Your task to perform on an android device: Search for usb-a on walmart, select the first entry, and add it to the cart. Image 0: 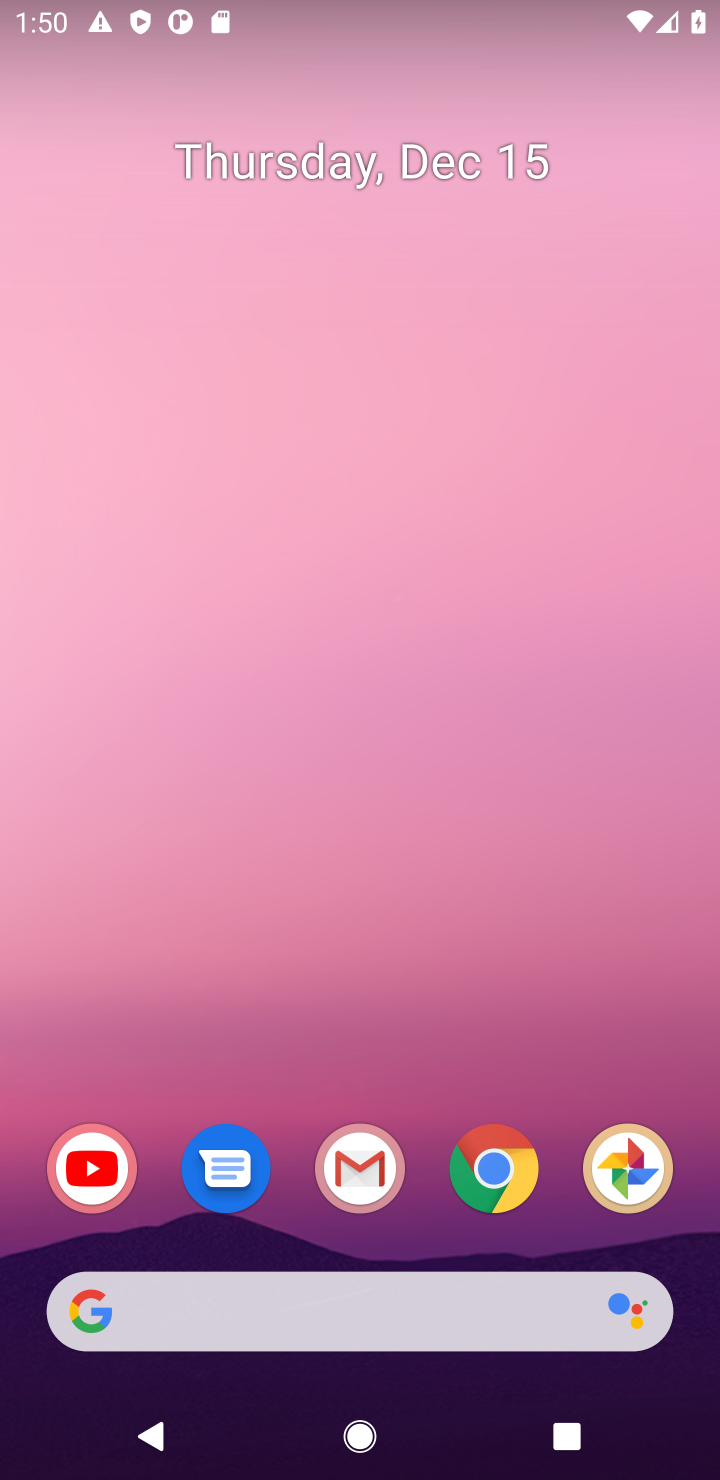
Step 0: click (488, 1183)
Your task to perform on an android device: Search for usb-a on walmart, select the first entry, and add it to the cart. Image 1: 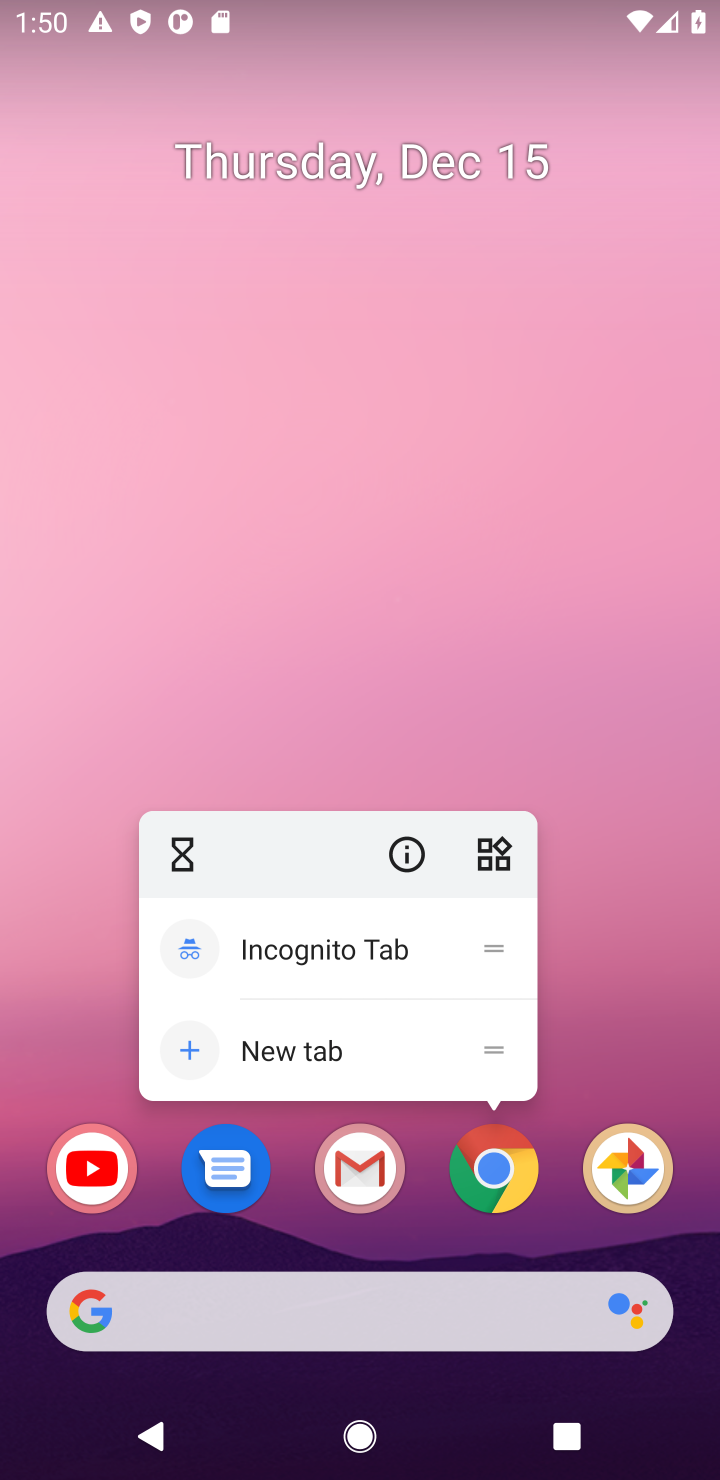
Step 1: click (488, 1183)
Your task to perform on an android device: Search for usb-a on walmart, select the first entry, and add it to the cart. Image 2: 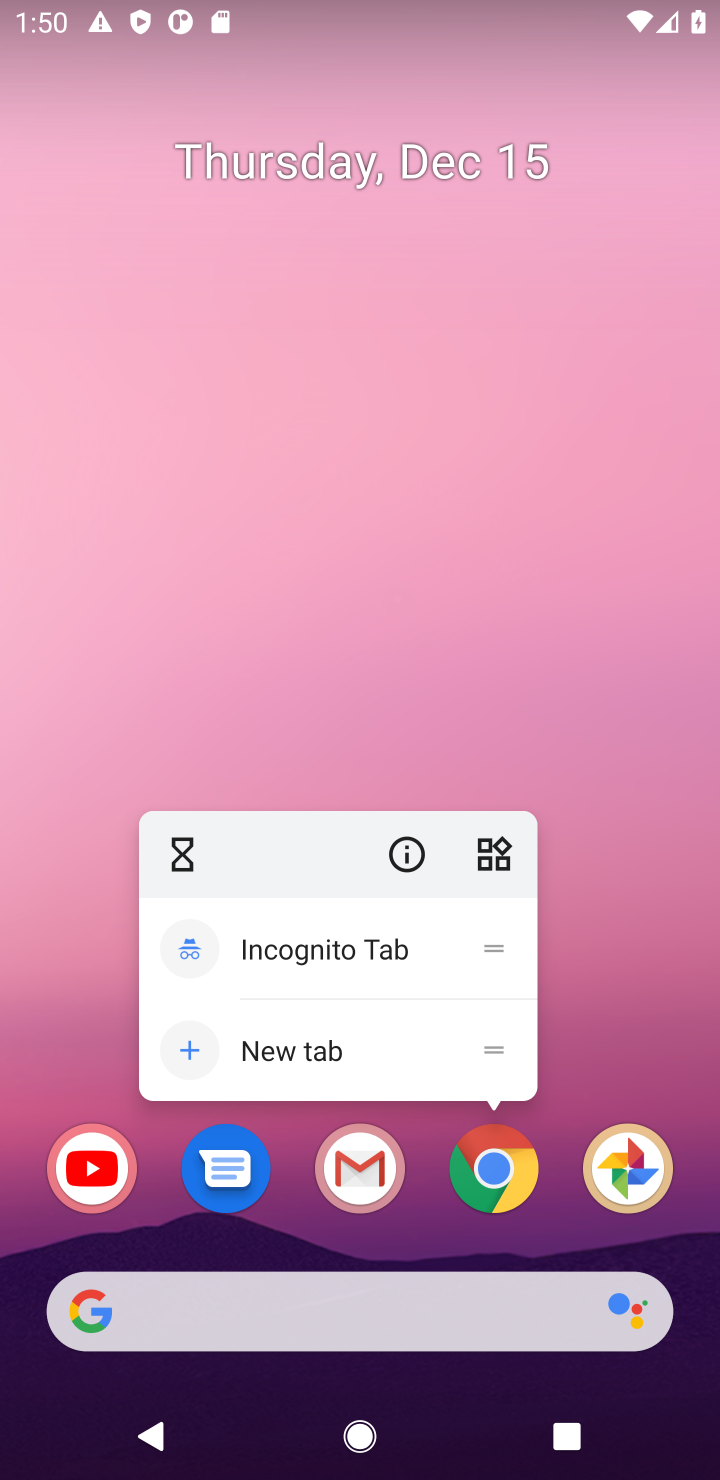
Step 2: click (488, 1183)
Your task to perform on an android device: Search for usb-a on walmart, select the first entry, and add it to the cart. Image 3: 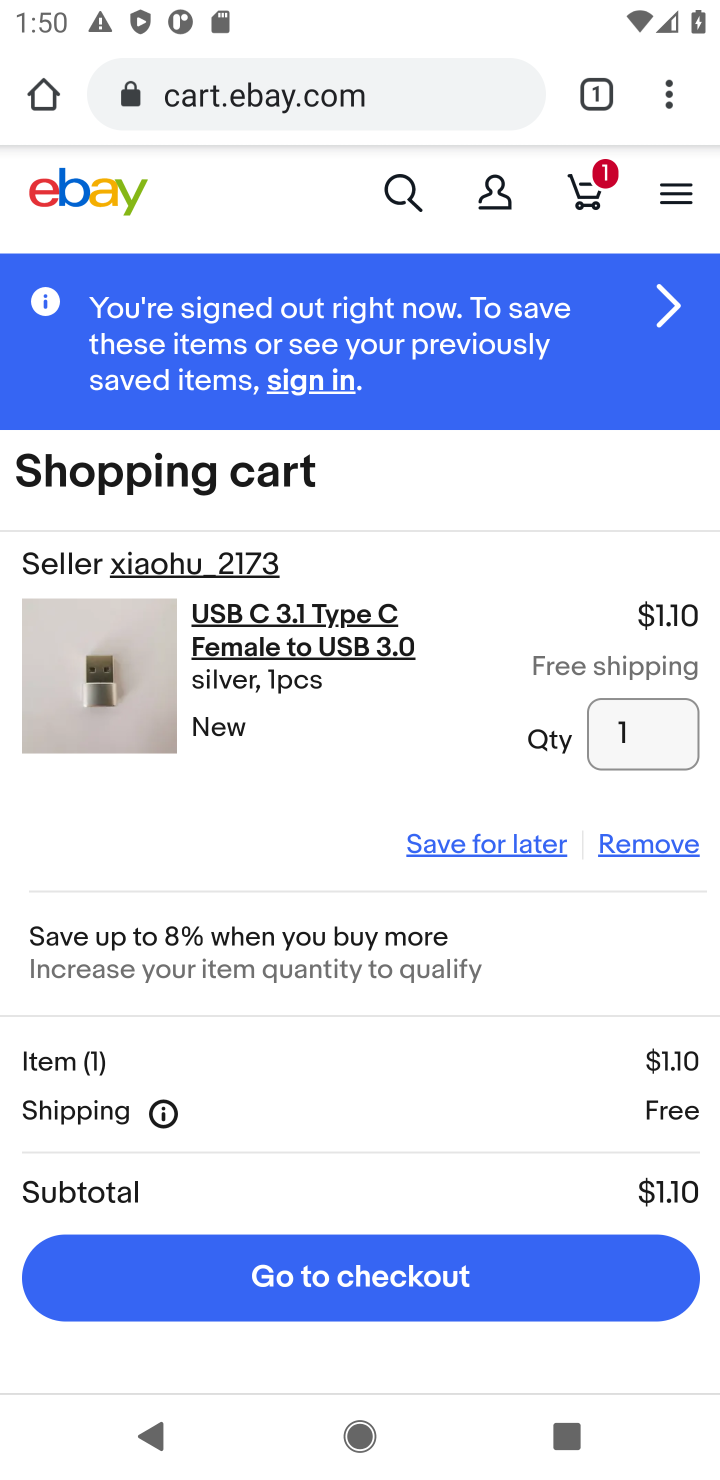
Step 3: click (459, 105)
Your task to perform on an android device: Search for usb-a on walmart, select the first entry, and add it to the cart. Image 4: 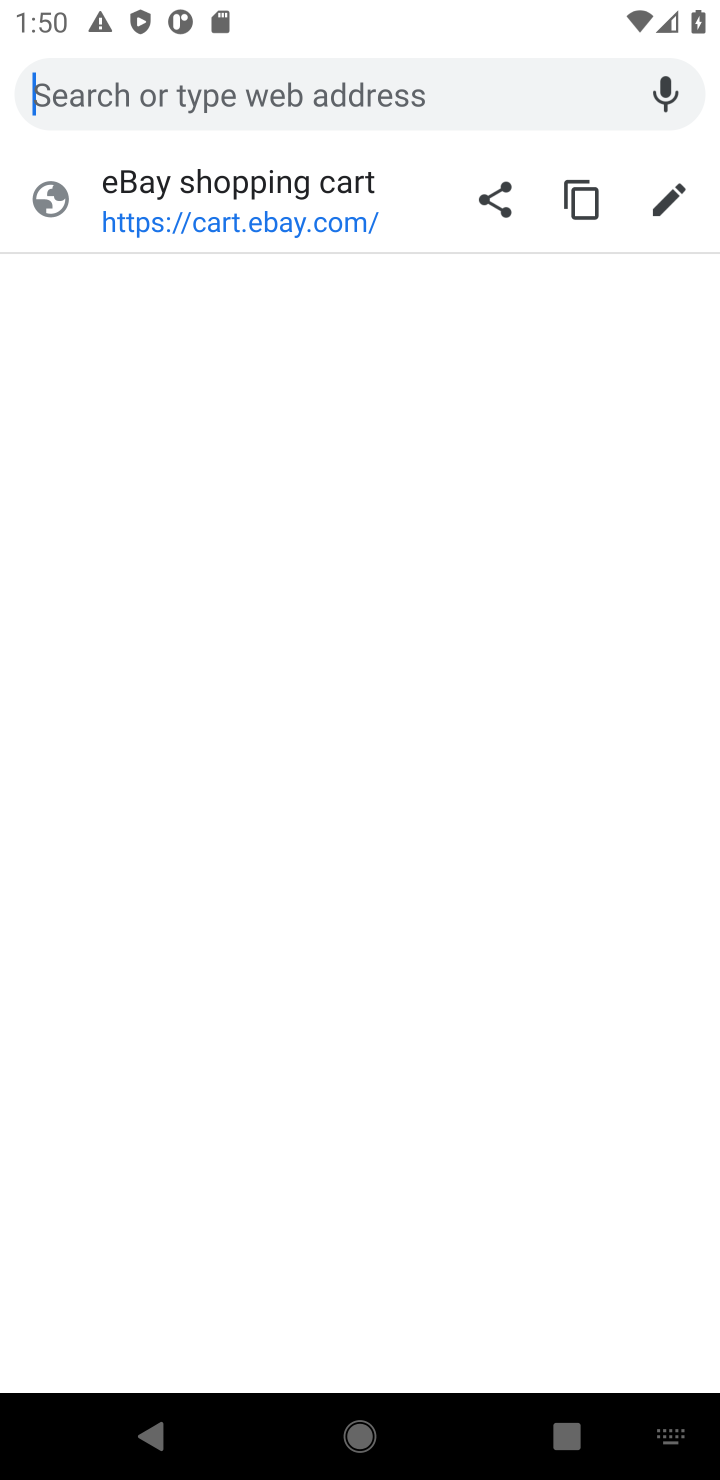
Step 4: press enter
Your task to perform on an android device: Search for usb-a on walmart, select the first entry, and add it to the cart. Image 5: 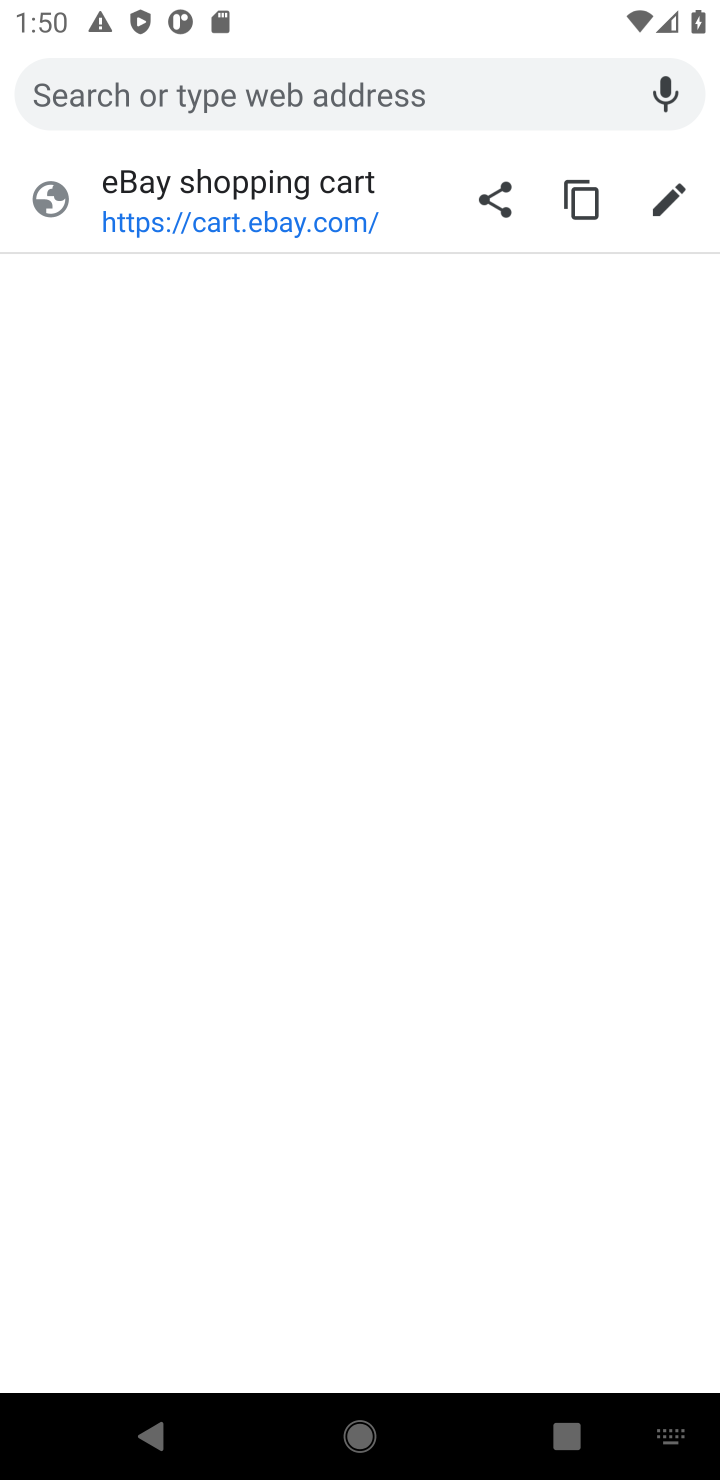
Step 5: type "walmart"
Your task to perform on an android device: Search for usb-a on walmart, select the first entry, and add it to the cart. Image 6: 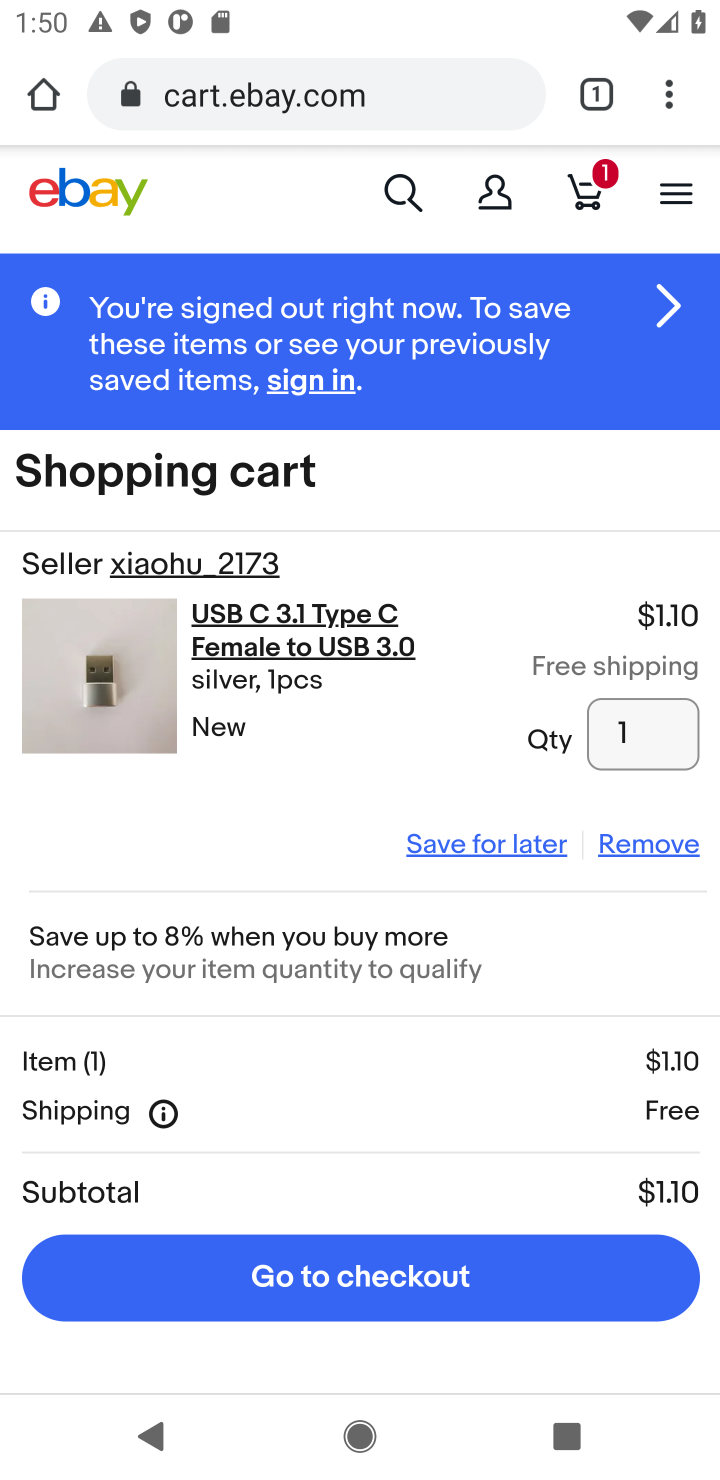
Step 6: click (45, 102)
Your task to perform on an android device: Search for usb-a on walmart, select the first entry, and add it to the cart. Image 7: 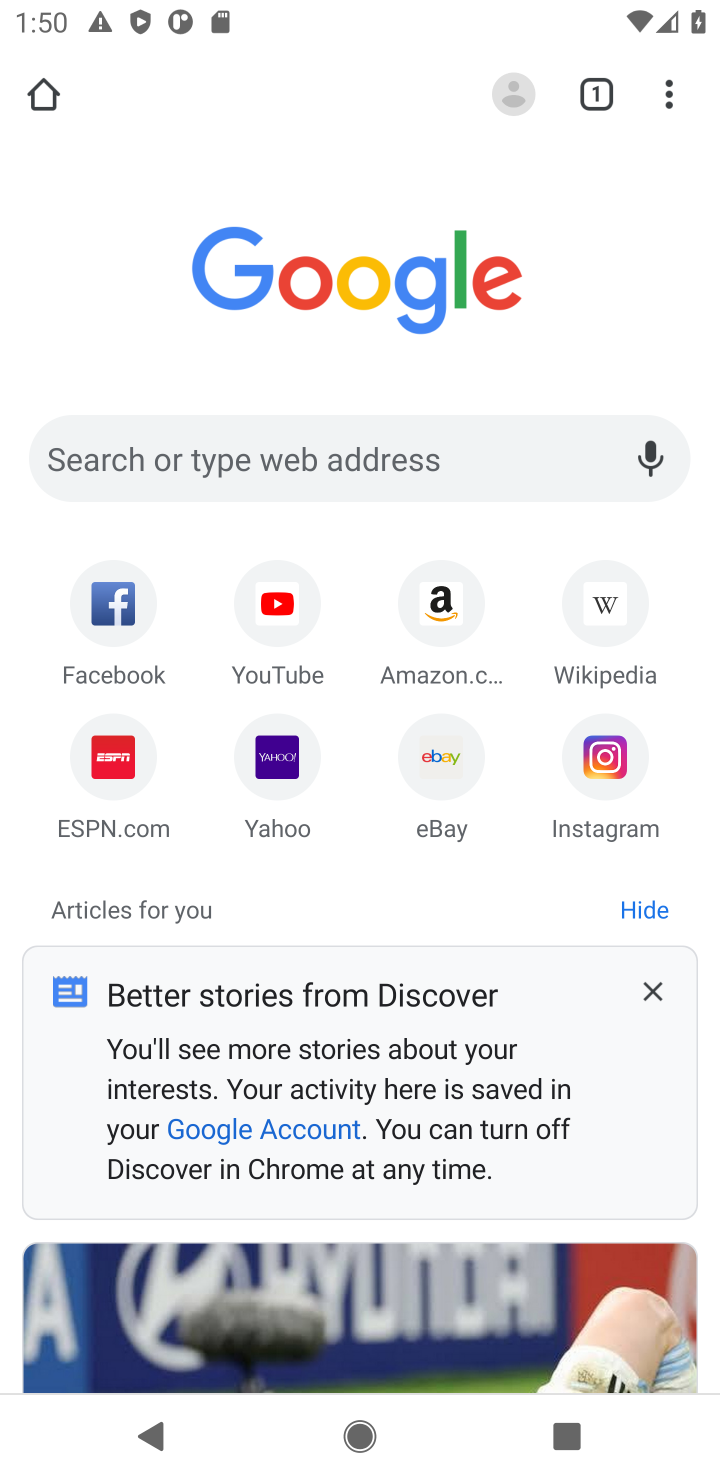
Step 7: click (567, 446)
Your task to perform on an android device: Search for usb-a on walmart, select the first entry, and add it to the cart. Image 8: 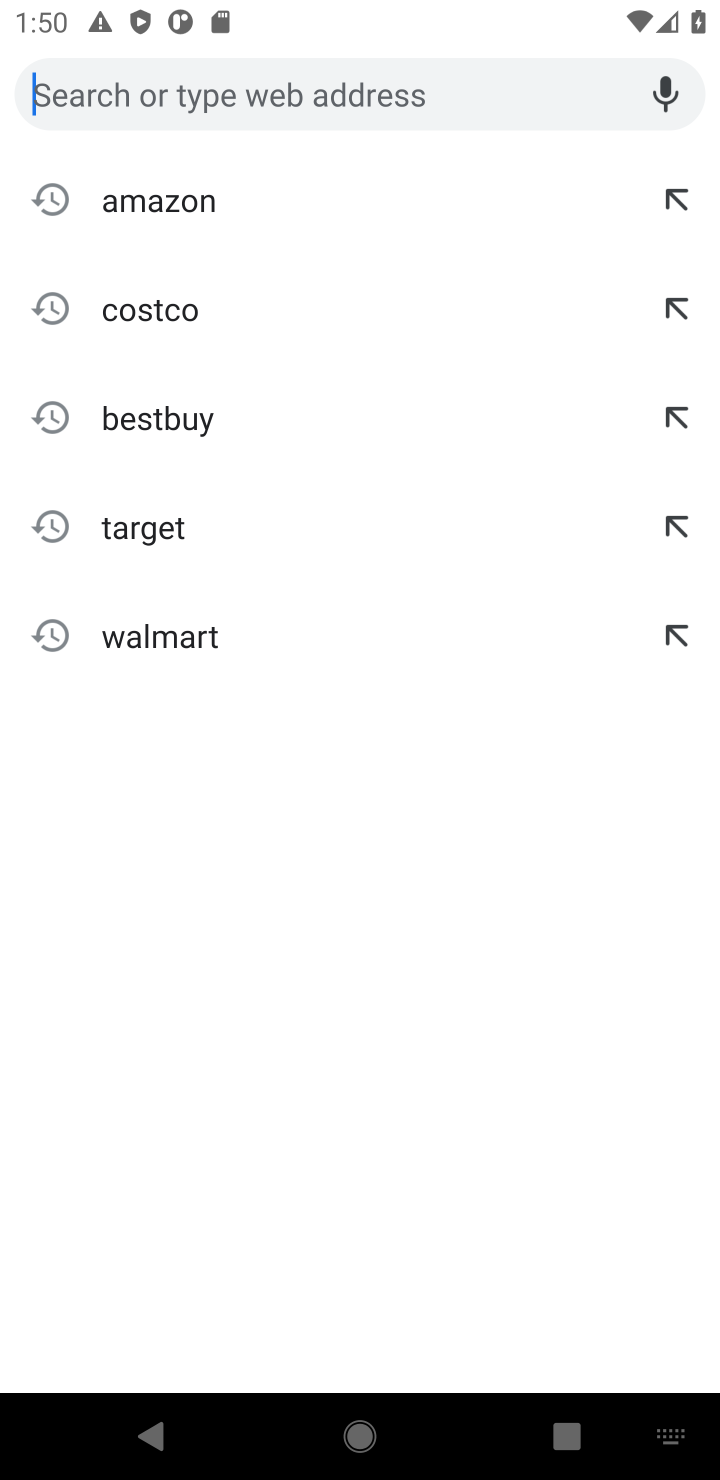
Step 8: click (178, 639)
Your task to perform on an android device: Search for usb-a on walmart, select the first entry, and add it to the cart. Image 9: 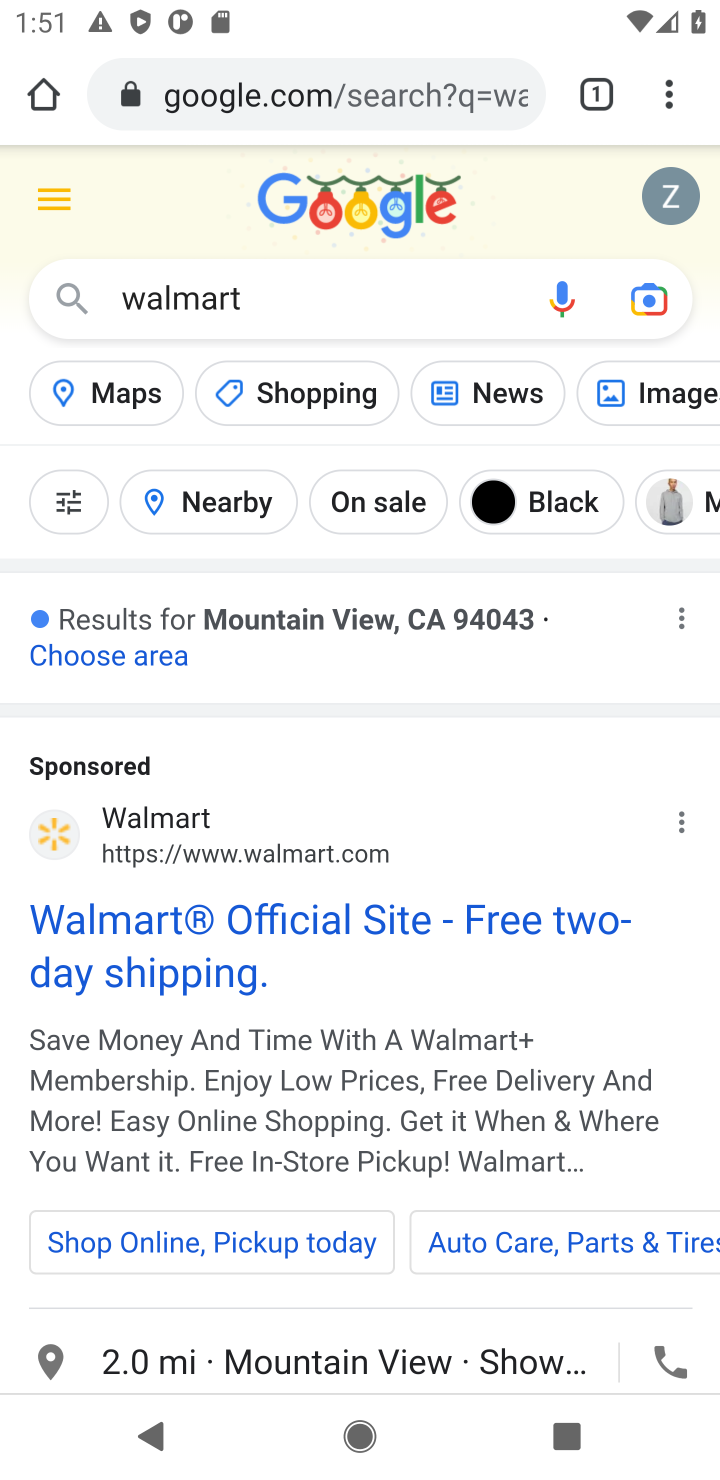
Step 9: click (295, 849)
Your task to perform on an android device: Search for usb-a on walmart, select the first entry, and add it to the cart. Image 10: 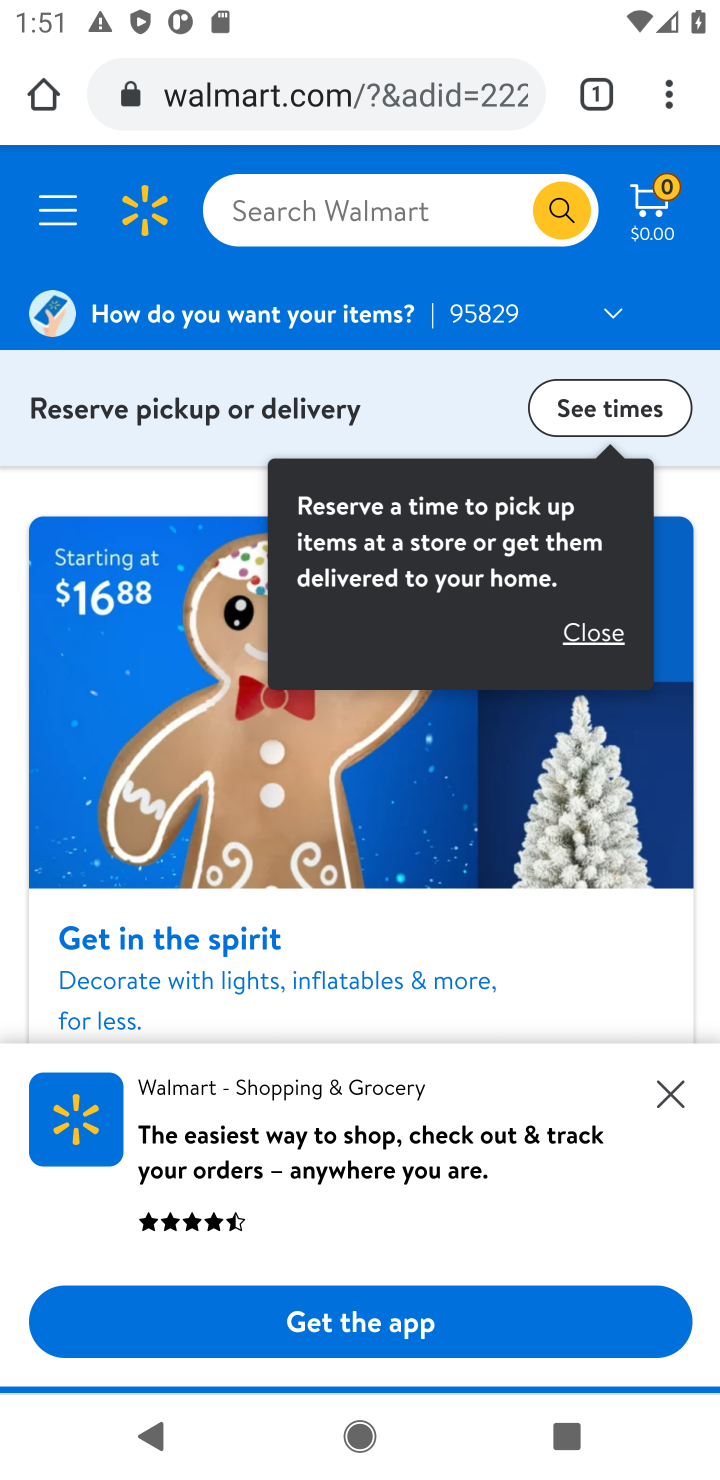
Step 10: click (413, 195)
Your task to perform on an android device: Search for usb-a on walmart, select the first entry, and add it to the cart. Image 11: 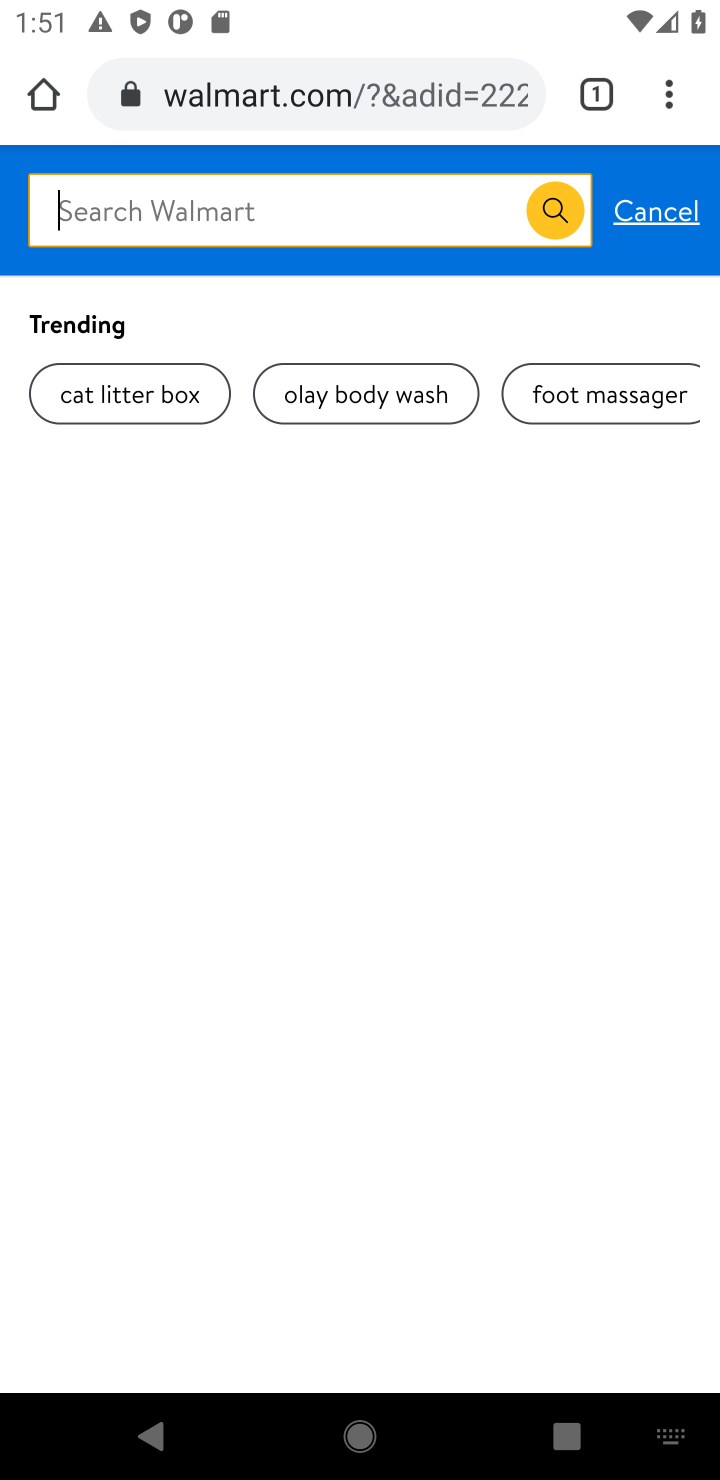
Step 11: press enter
Your task to perform on an android device: Search for usb-a on walmart, select the first entry, and add it to the cart. Image 12: 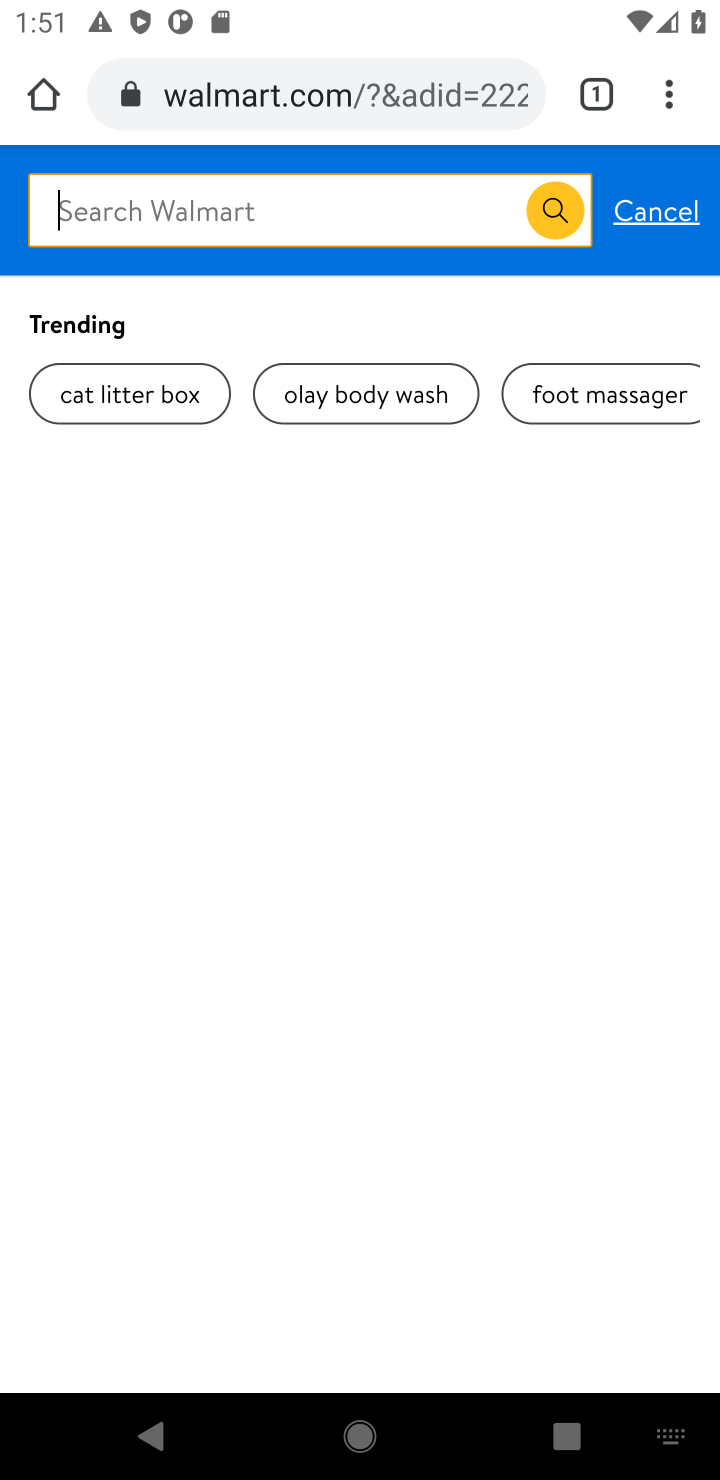
Step 12: type " usb-a"
Your task to perform on an android device: Search for usb-a on walmart, select the first entry, and add it to the cart. Image 13: 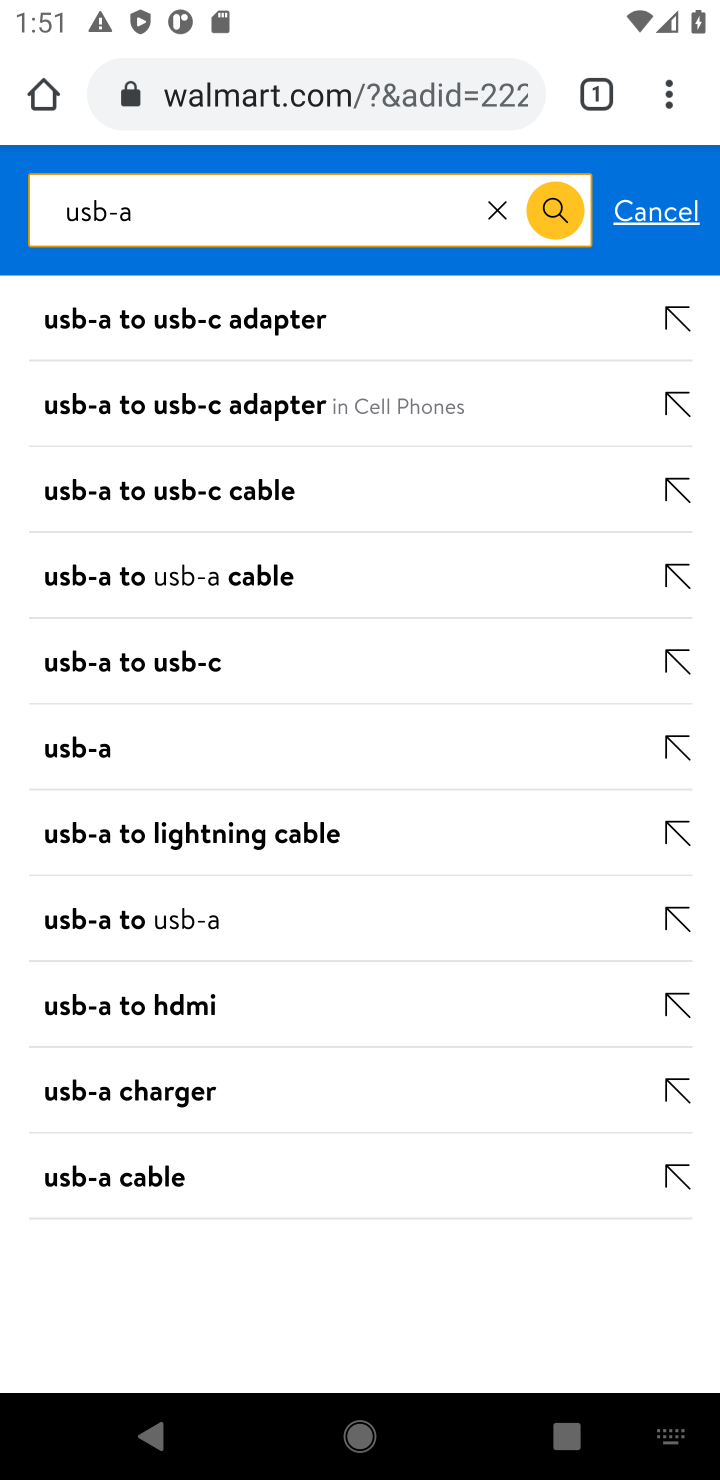
Step 13: click (87, 750)
Your task to perform on an android device: Search for usb-a on walmart, select the first entry, and add it to the cart. Image 14: 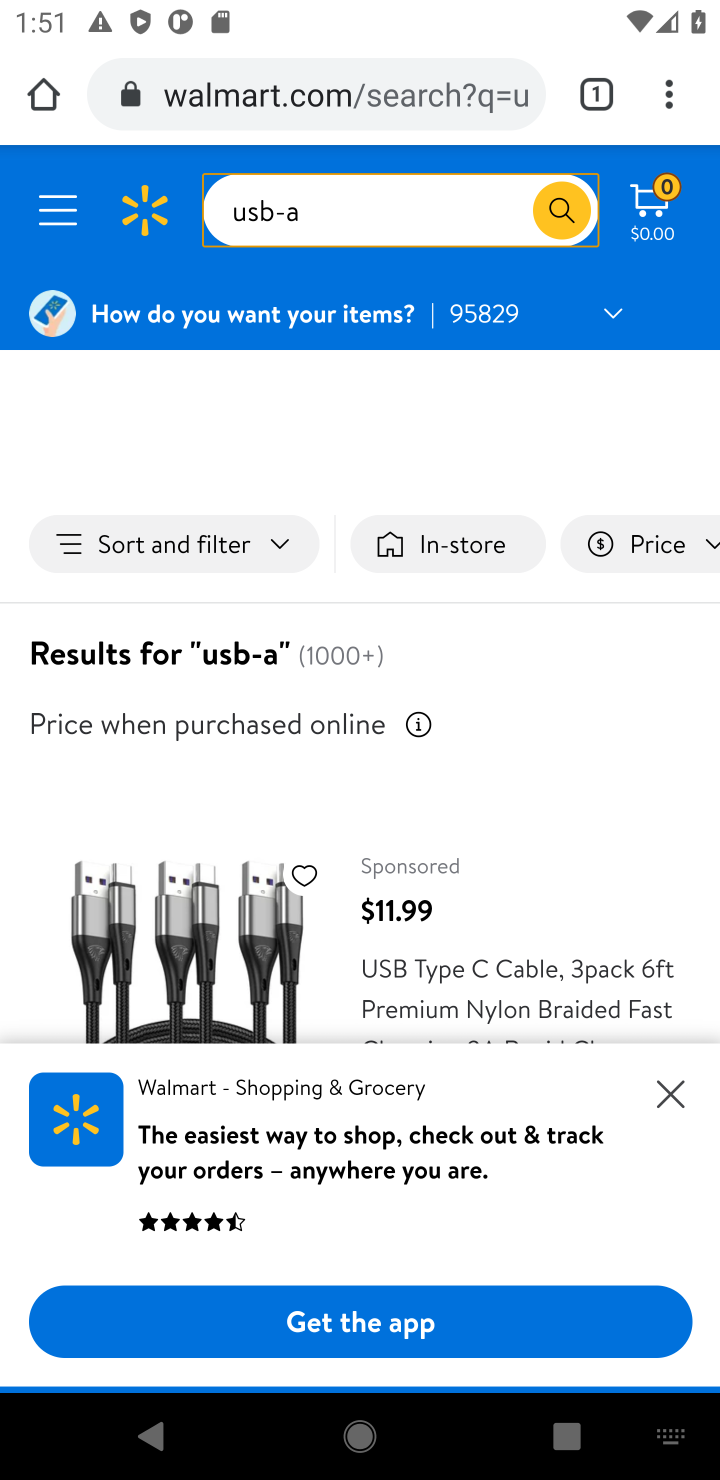
Step 14: click (676, 1087)
Your task to perform on an android device: Search for usb-a on walmart, select the first entry, and add it to the cart. Image 15: 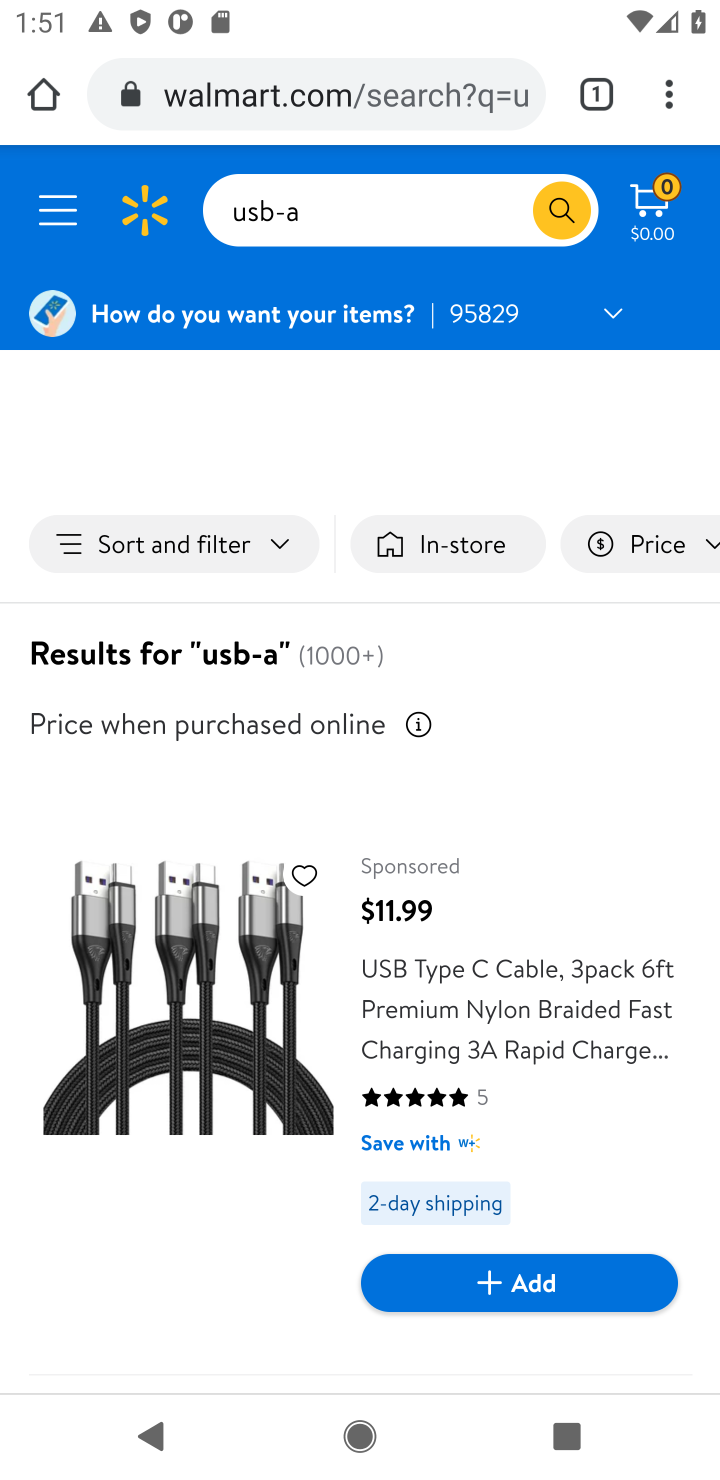
Step 15: drag from (541, 1010) to (462, 551)
Your task to perform on an android device: Search for usb-a on walmart, select the first entry, and add it to the cart. Image 16: 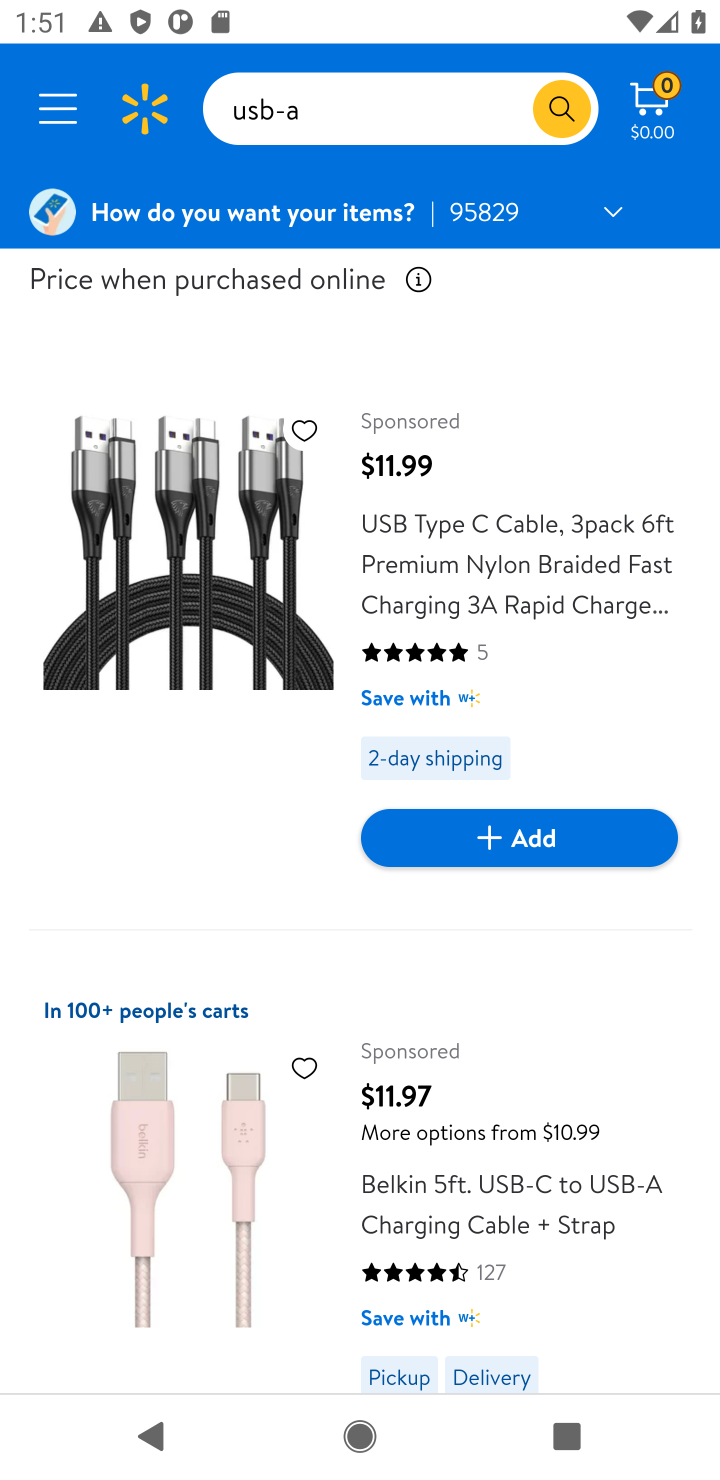
Step 16: drag from (395, 1162) to (349, 522)
Your task to perform on an android device: Search for usb-a on walmart, select the first entry, and add it to the cart. Image 17: 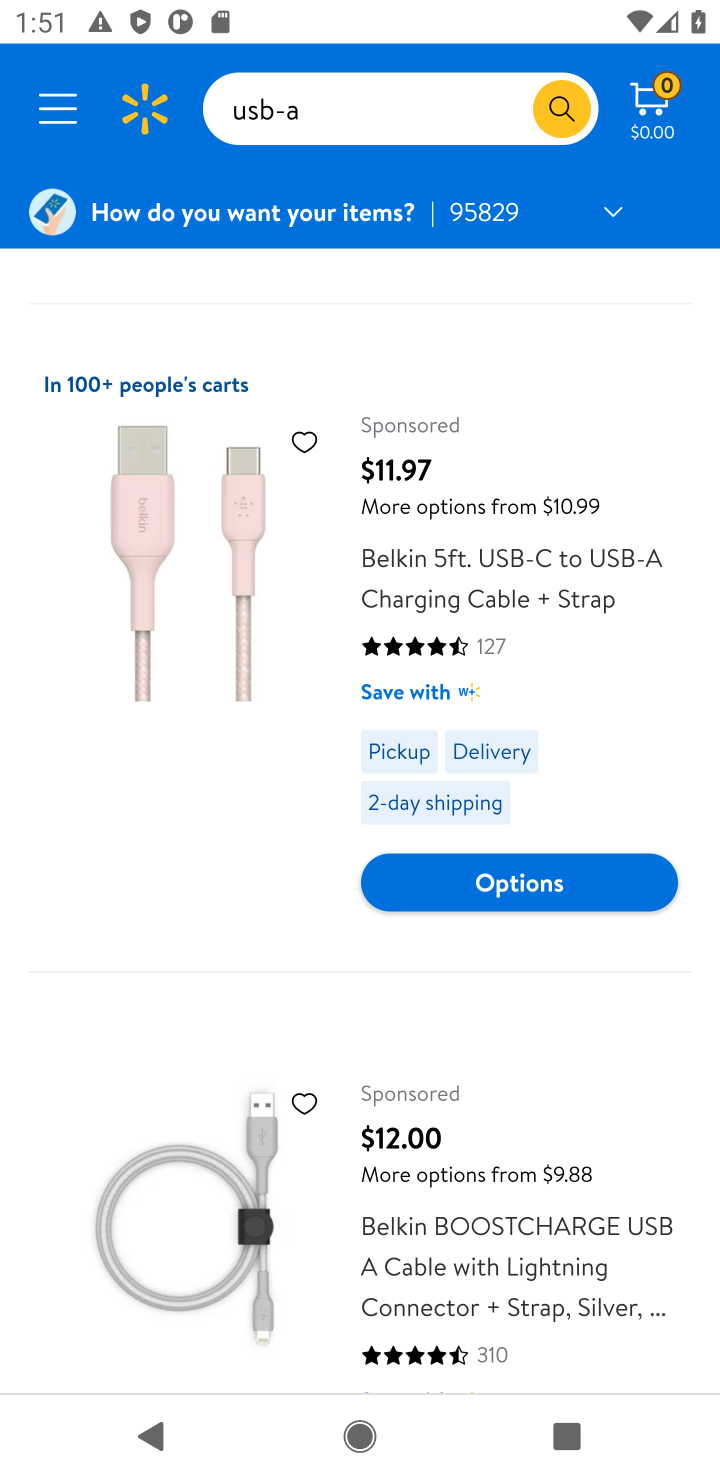
Step 17: drag from (476, 1189) to (428, 741)
Your task to perform on an android device: Search for usb-a on walmart, select the first entry, and add it to the cart. Image 18: 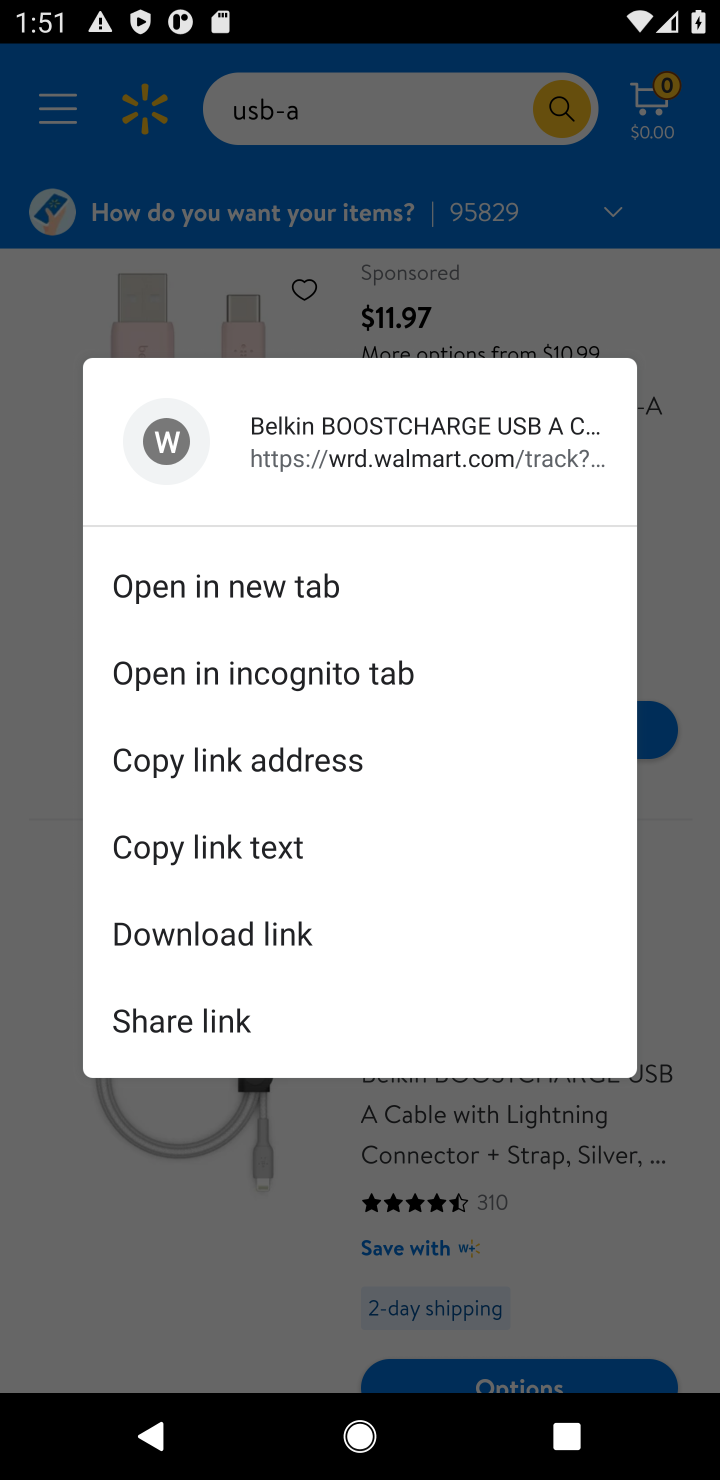
Step 18: click (486, 1204)
Your task to perform on an android device: Search for usb-a on walmart, select the first entry, and add it to the cart. Image 19: 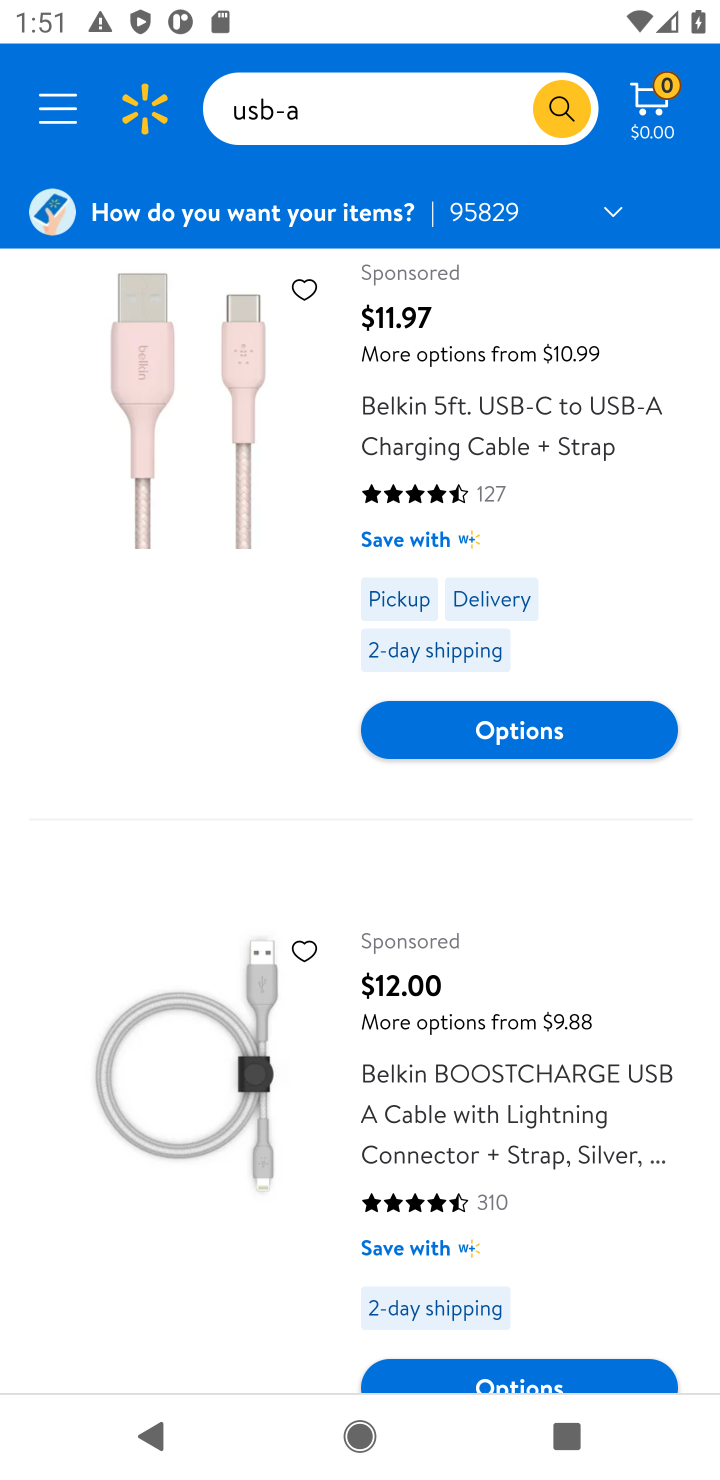
Step 19: click (220, 1100)
Your task to perform on an android device: Search for usb-a on walmart, select the first entry, and add it to the cart. Image 20: 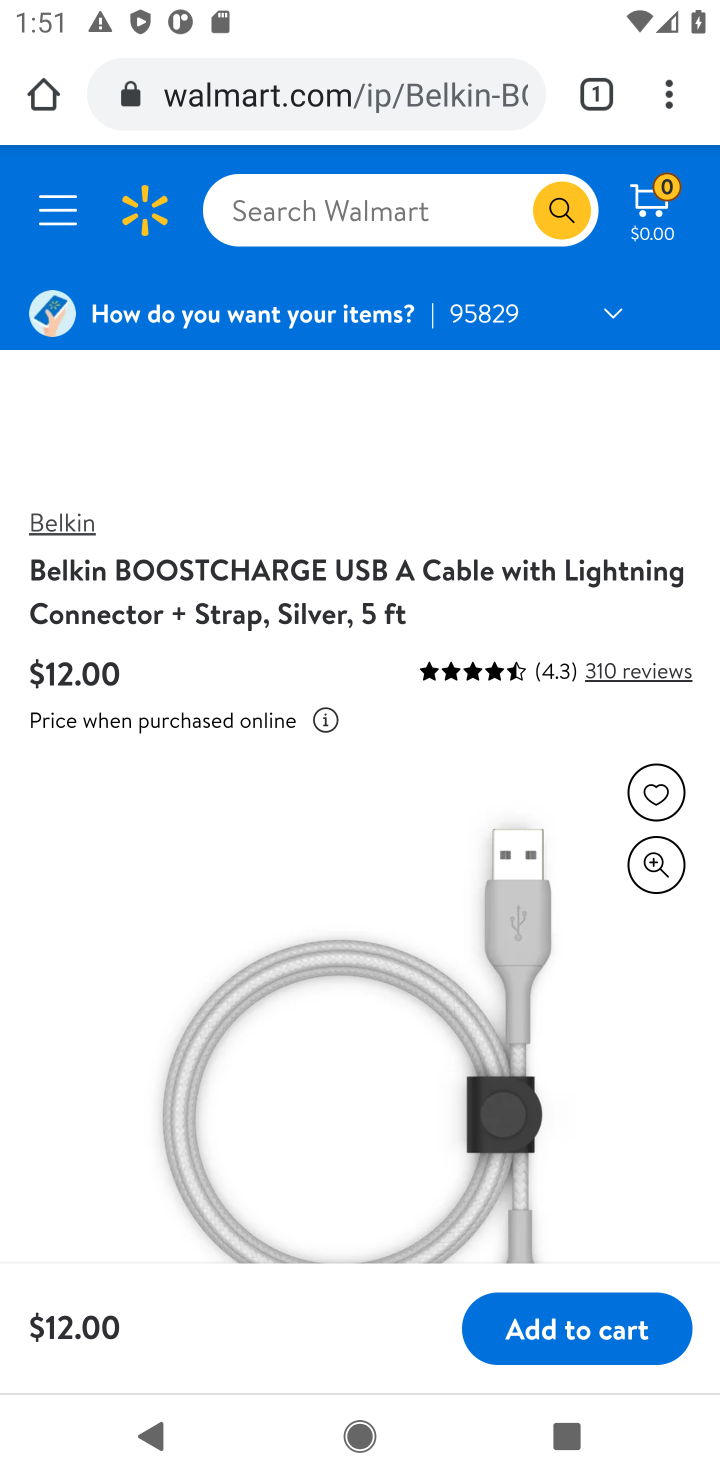
Step 20: click (603, 1337)
Your task to perform on an android device: Search for usb-a on walmart, select the first entry, and add it to the cart. Image 21: 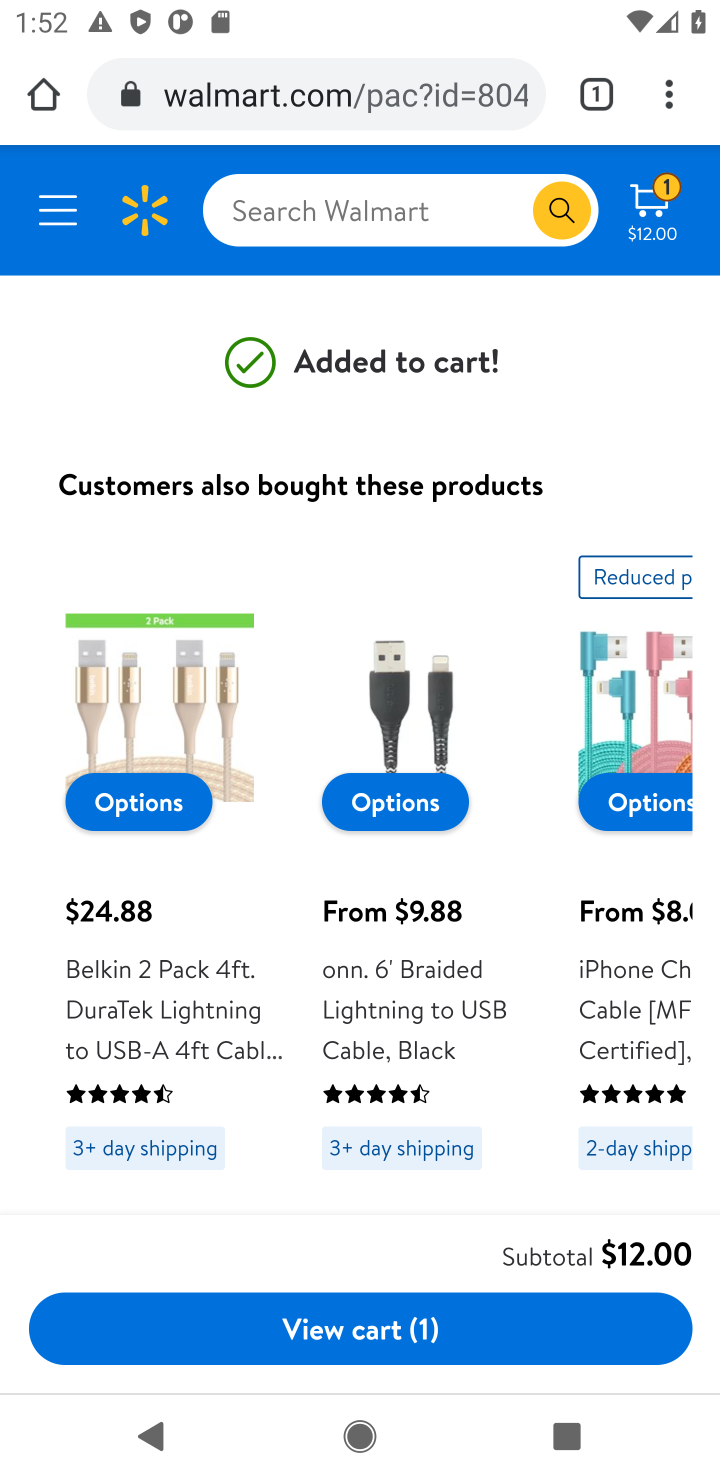
Step 21: task complete